Your task to perform on an android device: Search for sushi restaurants on Maps Image 0: 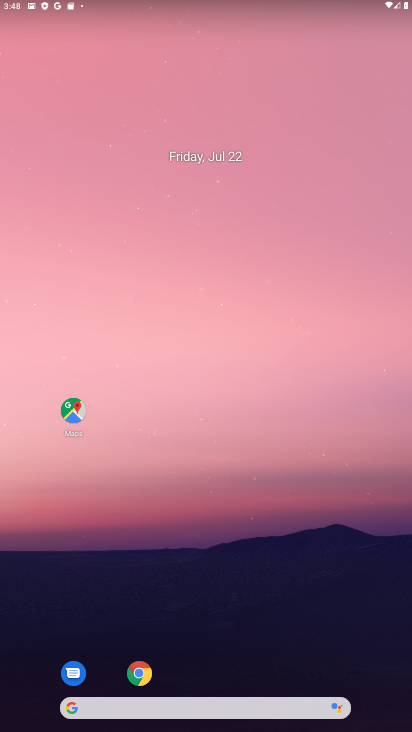
Step 0: click (73, 415)
Your task to perform on an android device: Search for sushi restaurants on Maps Image 1: 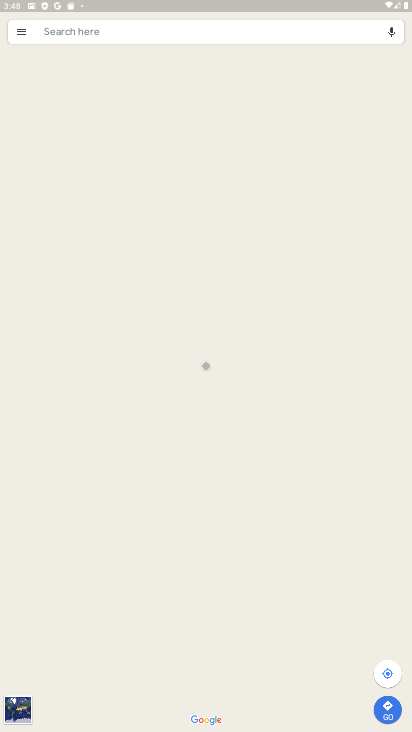
Step 1: click (200, 36)
Your task to perform on an android device: Search for sushi restaurants on Maps Image 2: 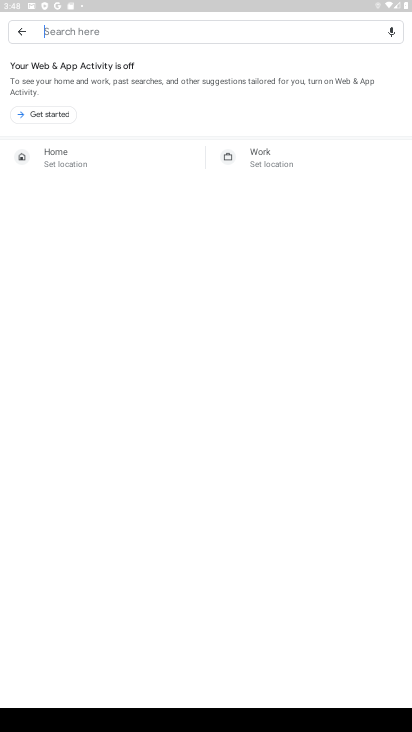
Step 2: type "sushi restaurants"
Your task to perform on an android device: Search for sushi restaurants on Maps Image 3: 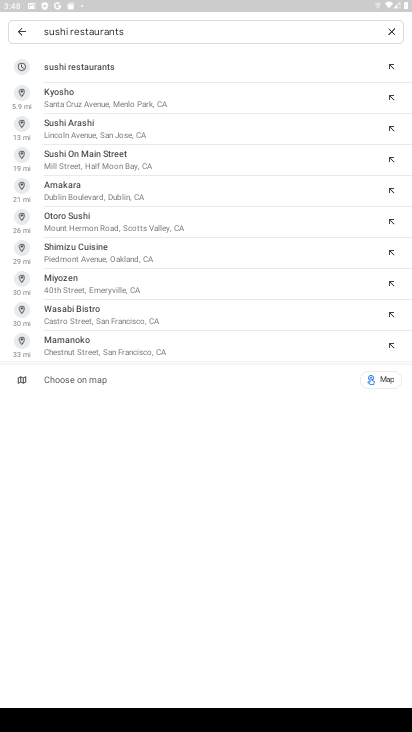
Step 3: click (239, 63)
Your task to perform on an android device: Search for sushi restaurants on Maps Image 4: 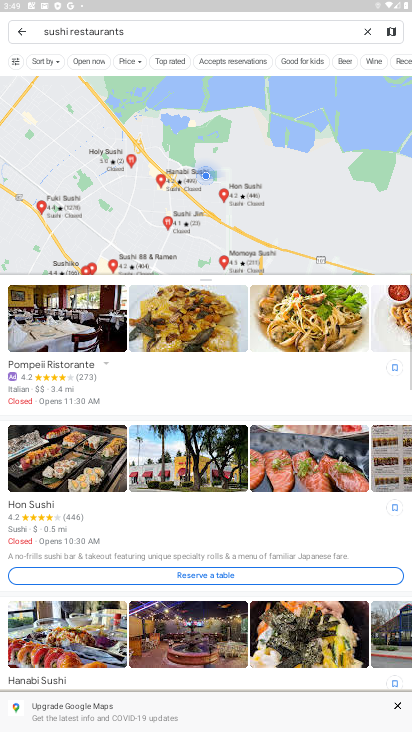
Step 4: task complete